Your task to perform on an android device: star an email in the gmail app Image 0: 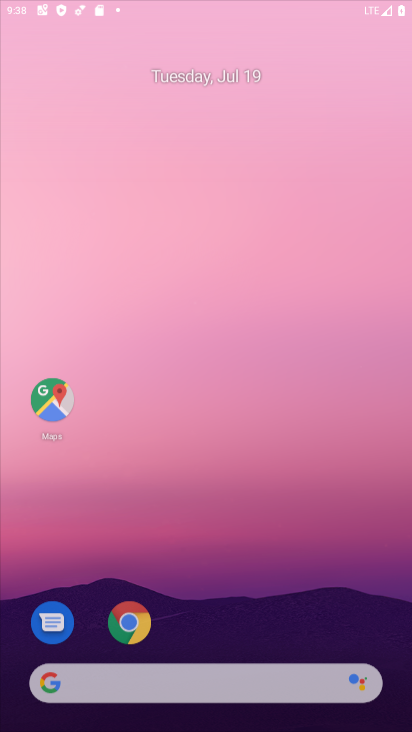
Step 0: press home button
Your task to perform on an android device: star an email in the gmail app Image 1: 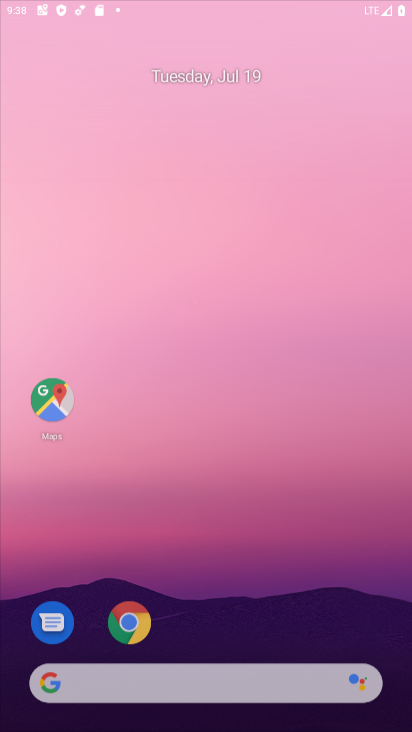
Step 1: click (310, 108)
Your task to perform on an android device: star an email in the gmail app Image 2: 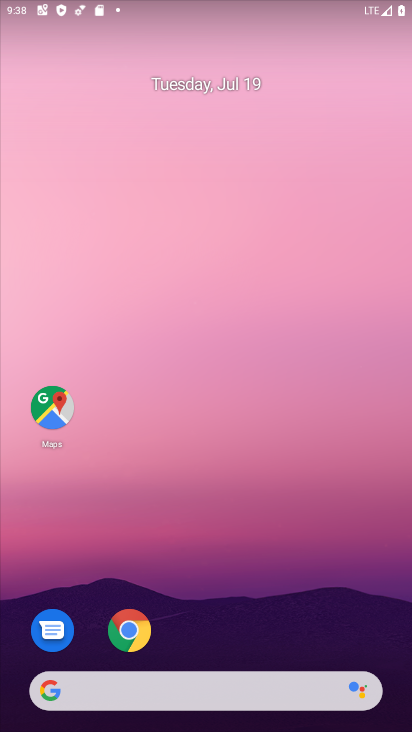
Step 2: drag from (176, 627) to (297, 182)
Your task to perform on an android device: star an email in the gmail app Image 3: 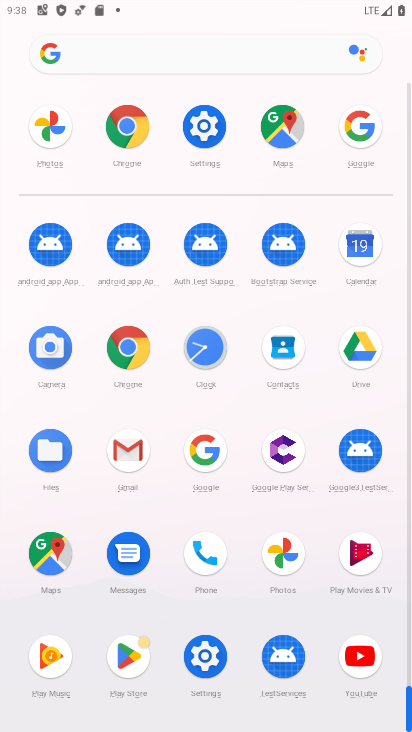
Step 3: click (130, 469)
Your task to perform on an android device: star an email in the gmail app Image 4: 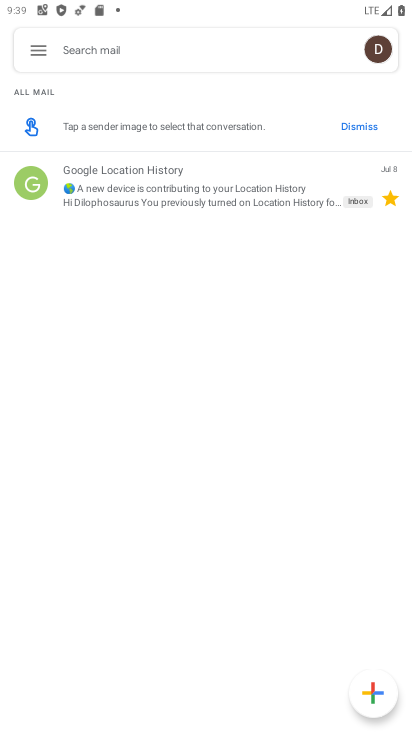
Step 4: task complete